Your task to perform on an android device: toggle sleep mode Image 0: 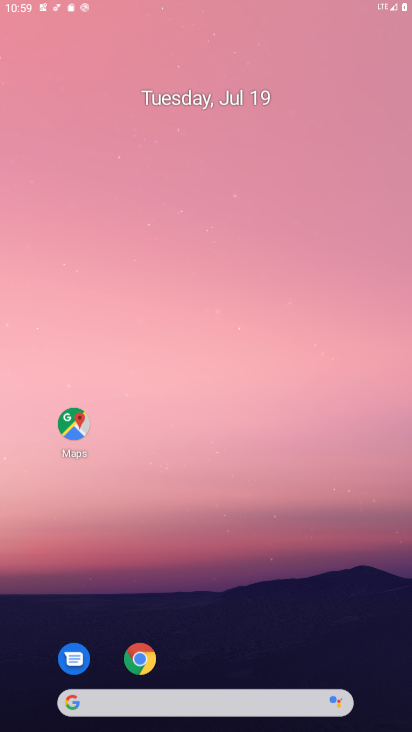
Step 0: drag from (244, 530) to (286, 160)
Your task to perform on an android device: toggle sleep mode Image 1: 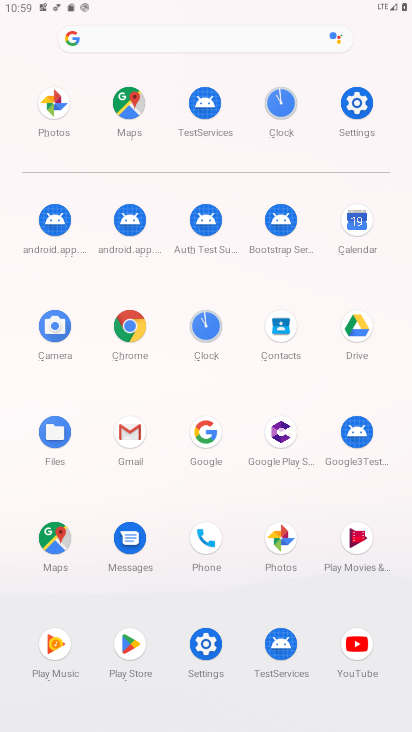
Step 1: click (199, 634)
Your task to perform on an android device: toggle sleep mode Image 2: 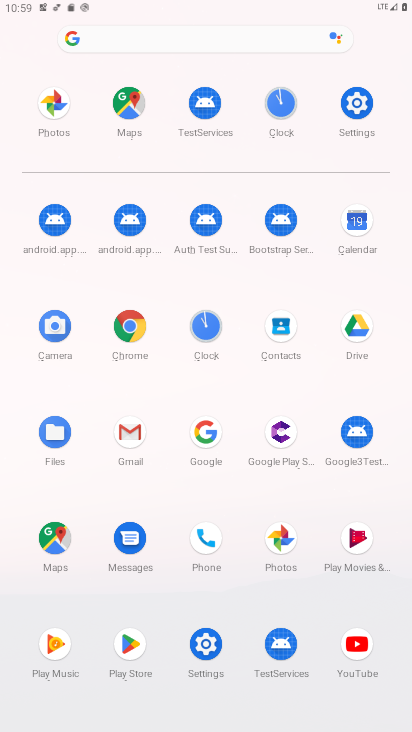
Step 2: click (199, 634)
Your task to perform on an android device: toggle sleep mode Image 3: 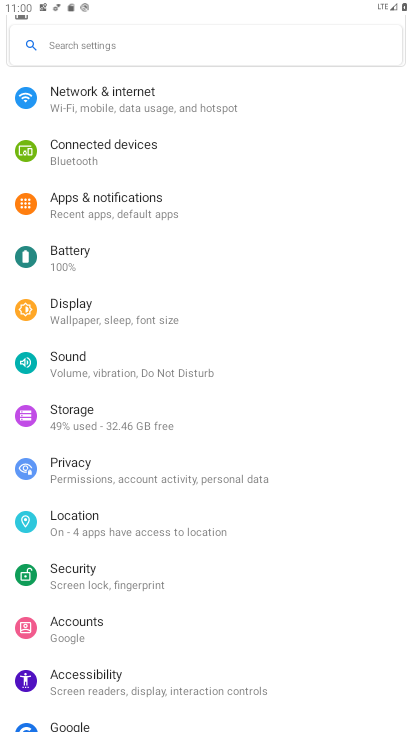
Step 3: click (106, 316)
Your task to perform on an android device: toggle sleep mode Image 4: 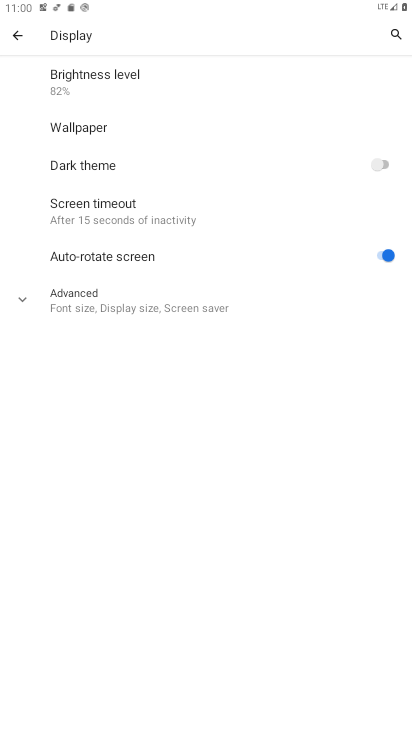
Step 4: click (136, 207)
Your task to perform on an android device: toggle sleep mode Image 5: 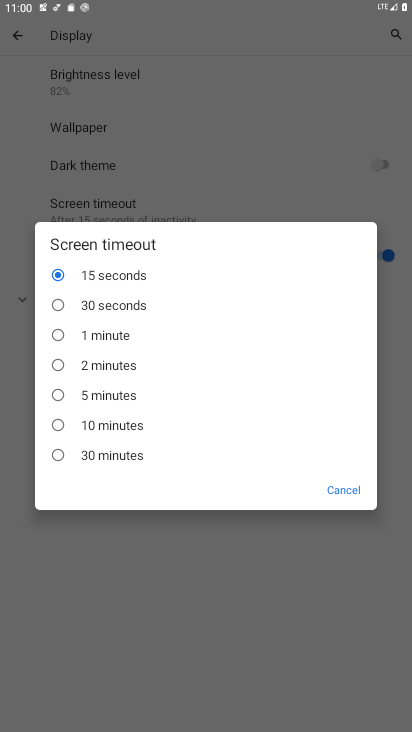
Step 5: click (71, 335)
Your task to perform on an android device: toggle sleep mode Image 6: 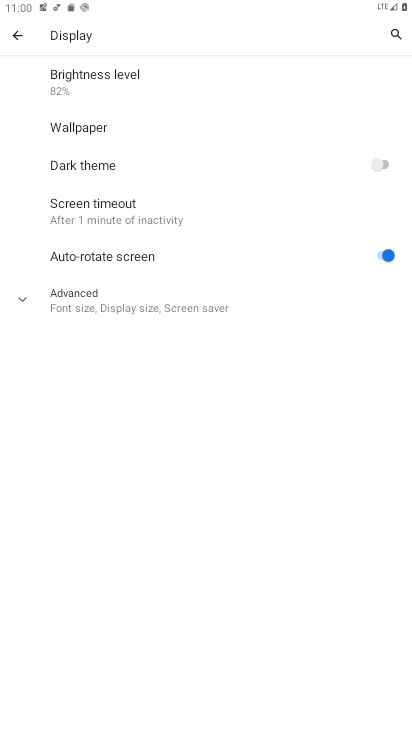
Step 6: task complete